Your task to perform on an android device: Search for Mexican restaurants on Maps Image 0: 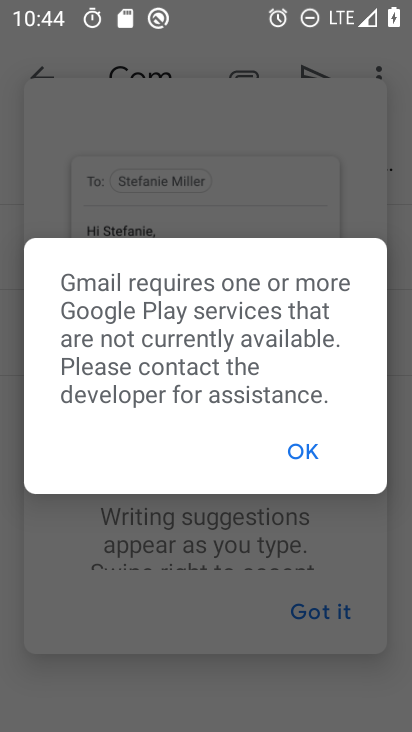
Step 0: press home button
Your task to perform on an android device: Search for Mexican restaurants on Maps Image 1: 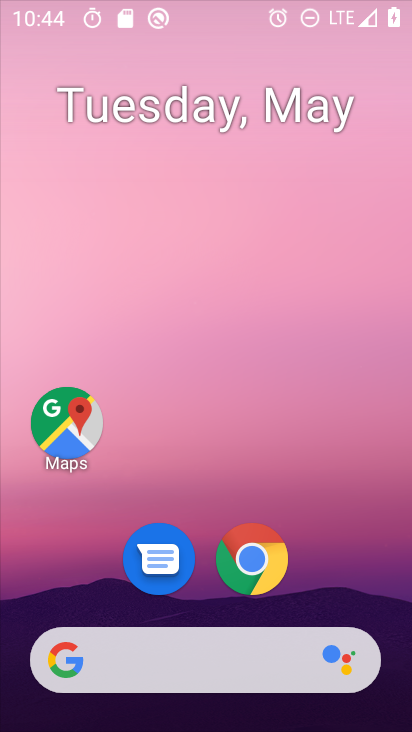
Step 1: drag from (400, 655) to (226, 43)
Your task to perform on an android device: Search for Mexican restaurants on Maps Image 2: 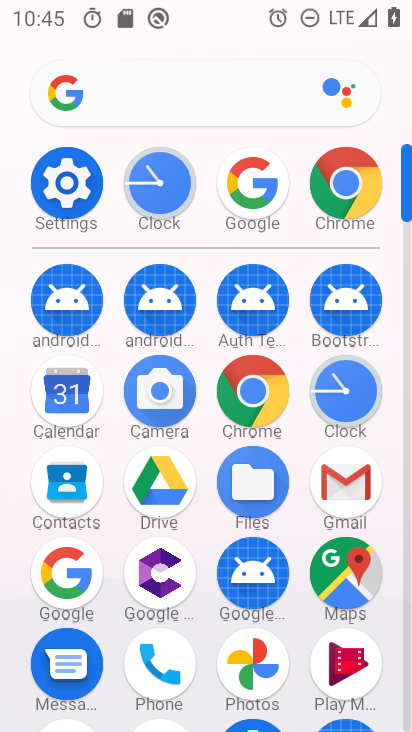
Step 2: click (338, 568)
Your task to perform on an android device: Search for Mexican restaurants on Maps Image 3: 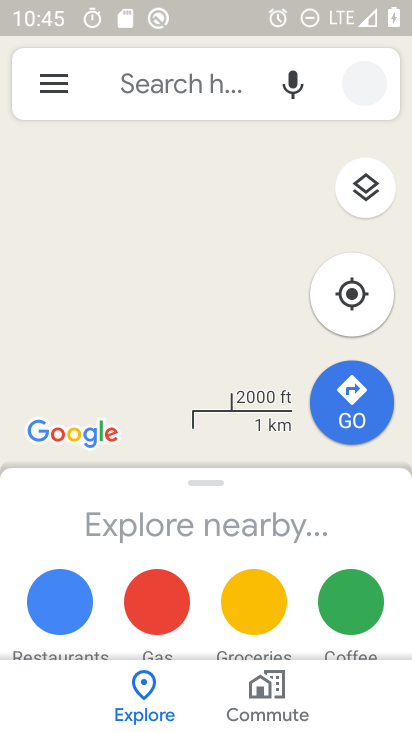
Step 3: click (188, 80)
Your task to perform on an android device: Search for Mexican restaurants on Maps Image 4: 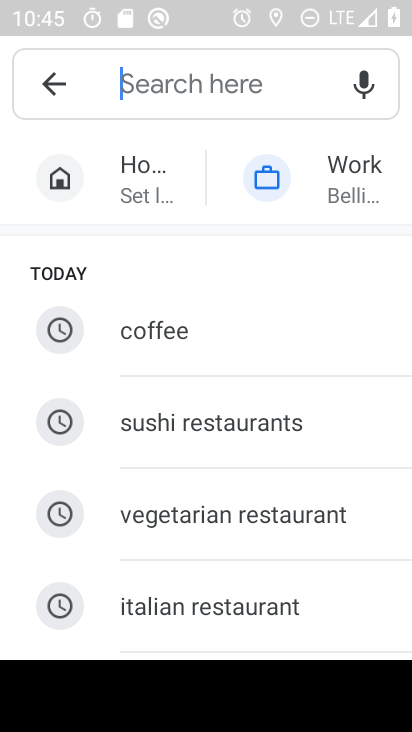
Step 4: drag from (245, 596) to (272, 207)
Your task to perform on an android device: Search for Mexican restaurants on Maps Image 5: 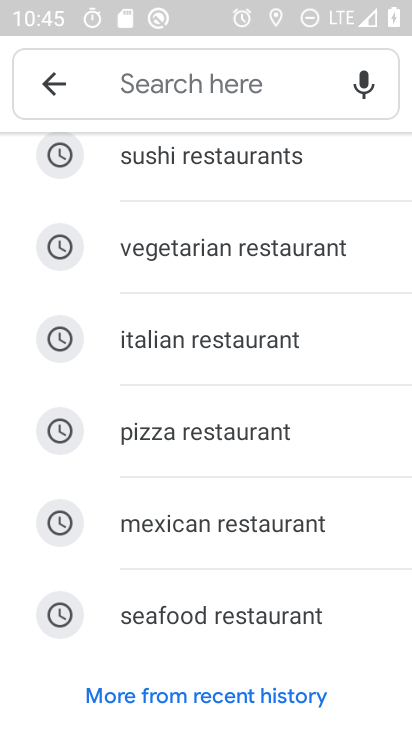
Step 5: click (251, 529)
Your task to perform on an android device: Search for Mexican restaurants on Maps Image 6: 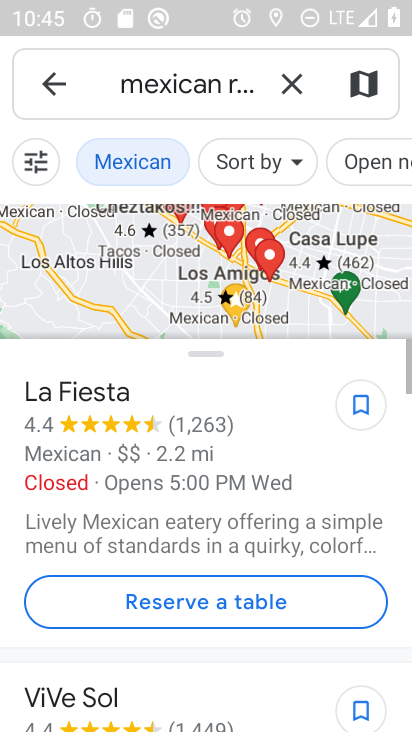
Step 6: task complete